Your task to perform on an android device: open app "Cash App" Image 0: 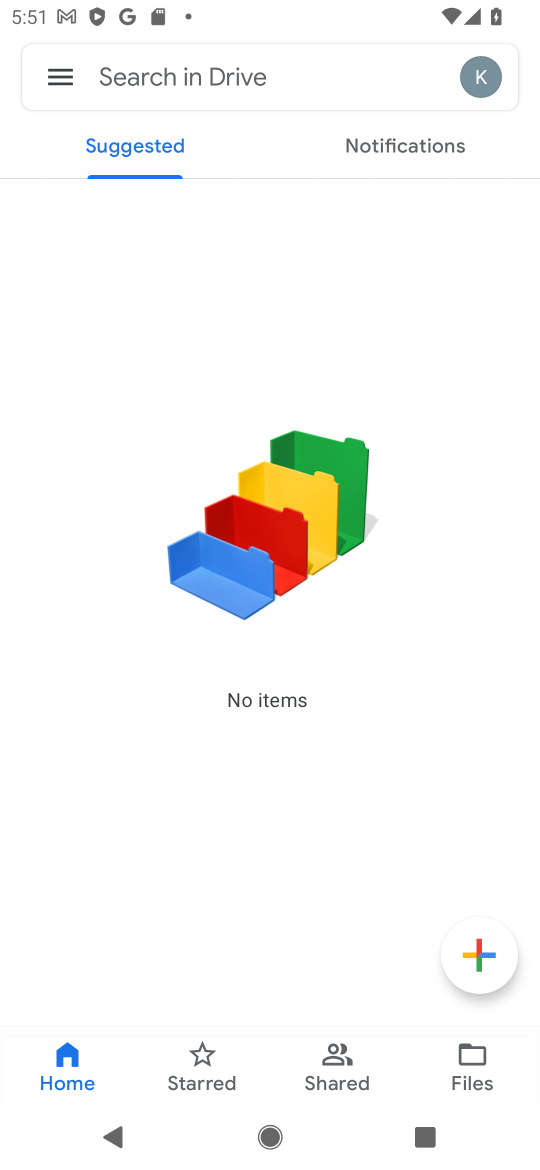
Step 0: press home button
Your task to perform on an android device: open app "Cash App" Image 1: 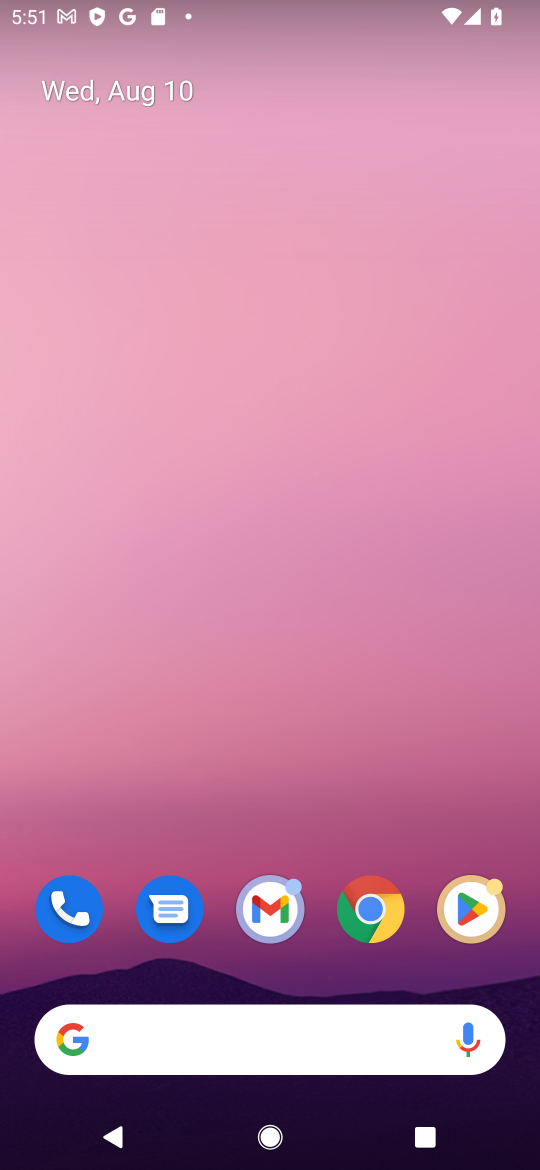
Step 1: click (488, 915)
Your task to perform on an android device: open app "Cash App" Image 2: 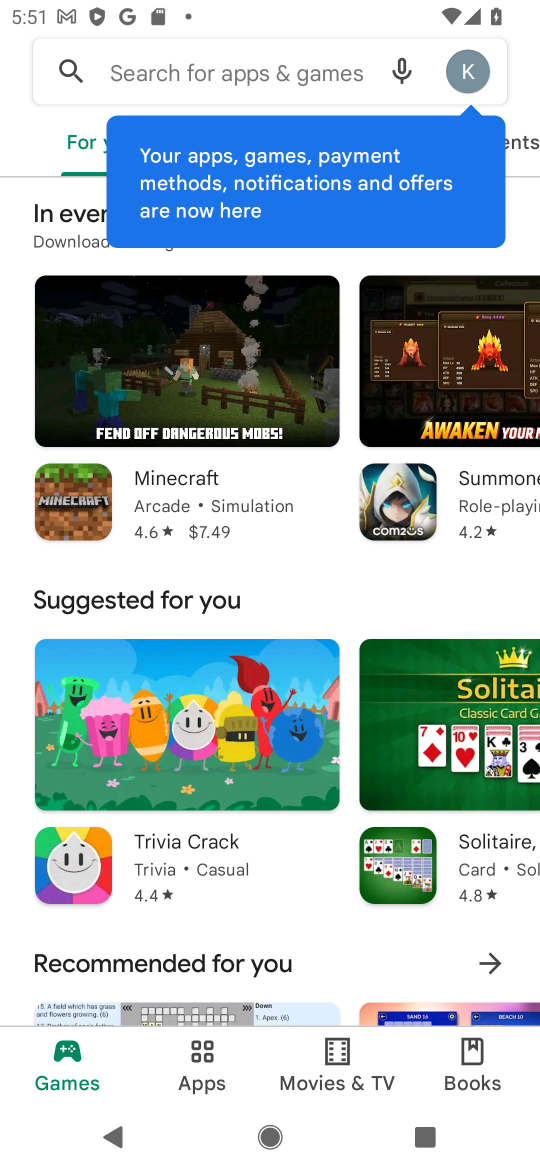
Step 2: click (164, 61)
Your task to perform on an android device: open app "Cash App" Image 3: 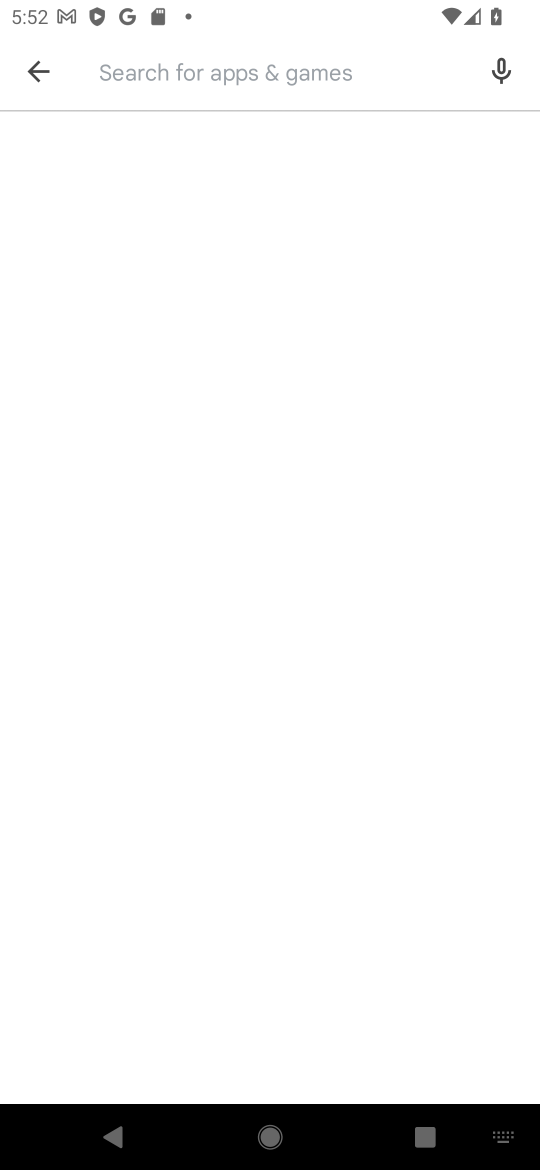
Step 3: type "cash up"
Your task to perform on an android device: open app "Cash App" Image 4: 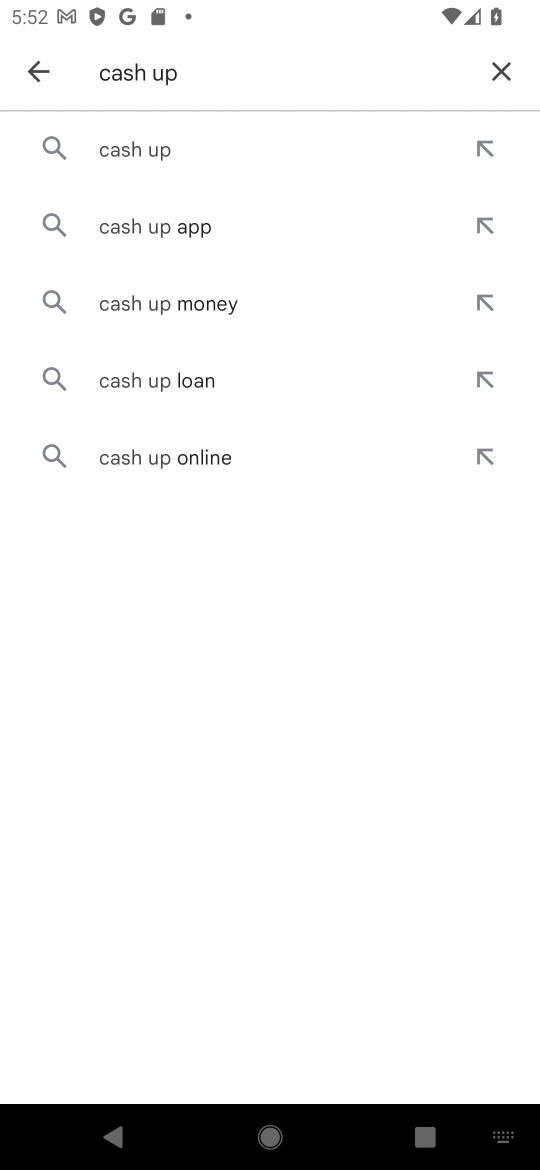
Step 4: click (174, 143)
Your task to perform on an android device: open app "Cash App" Image 5: 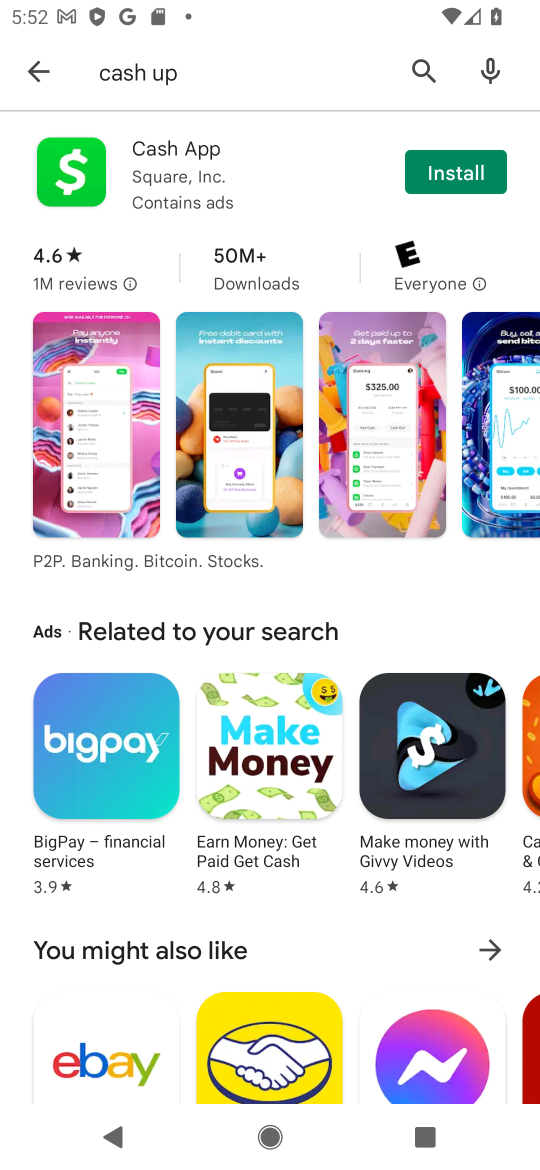
Step 5: task complete